Your task to perform on an android device: Go to calendar. Show me events next week Image 0: 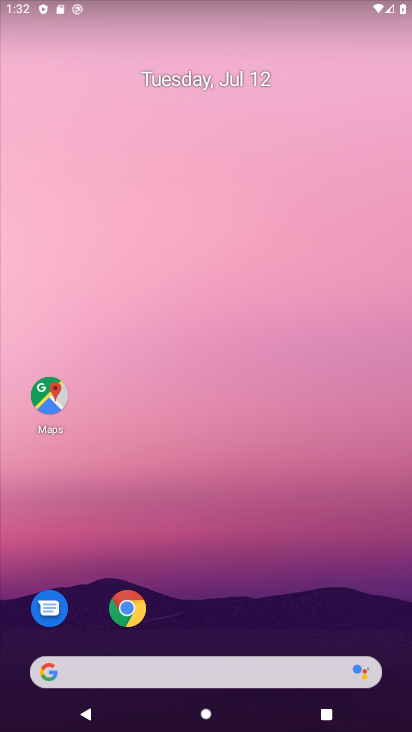
Step 0: click (230, 7)
Your task to perform on an android device: Go to calendar. Show me events next week Image 1: 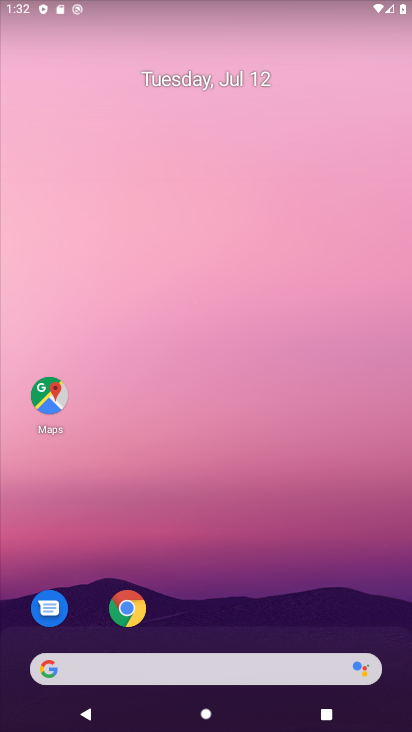
Step 1: drag from (313, 476) to (262, 89)
Your task to perform on an android device: Go to calendar. Show me events next week Image 2: 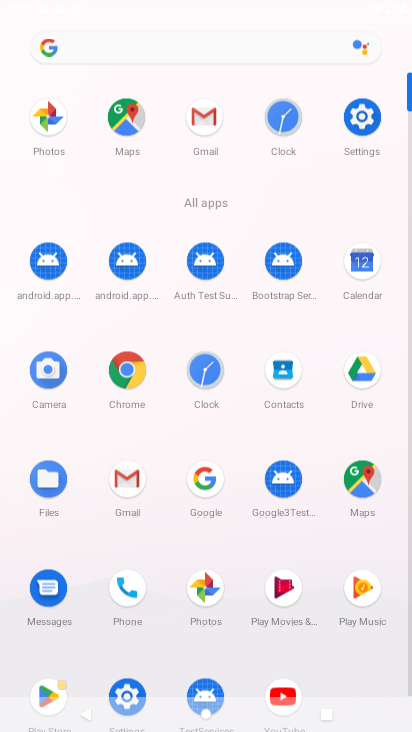
Step 2: drag from (275, 573) to (255, 296)
Your task to perform on an android device: Go to calendar. Show me events next week Image 3: 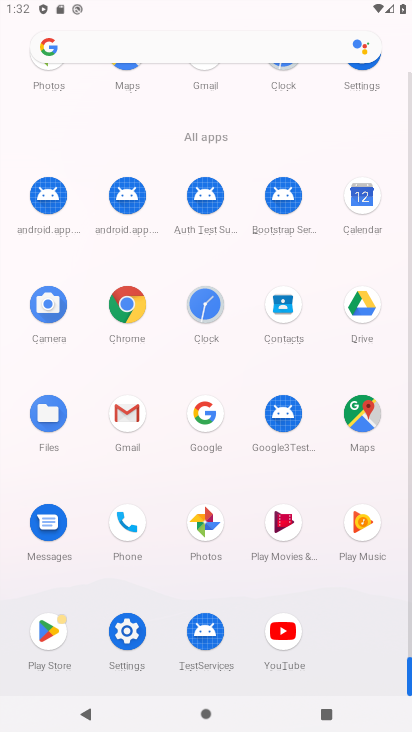
Step 3: click (370, 213)
Your task to perform on an android device: Go to calendar. Show me events next week Image 4: 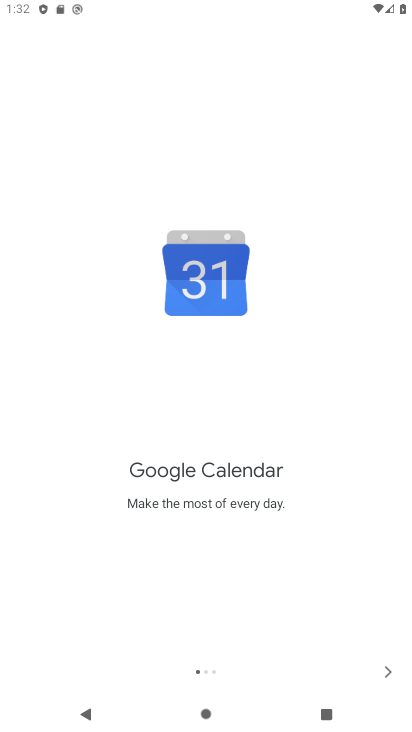
Step 4: click (385, 666)
Your task to perform on an android device: Go to calendar. Show me events next week Image 5: 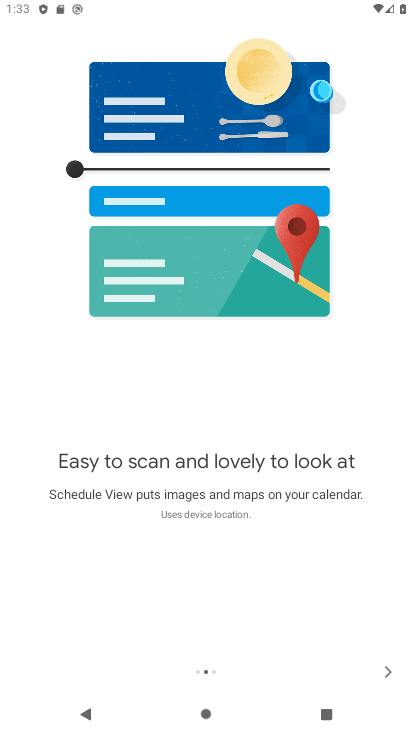
Step 5: click (383, 668)
Your task to perform on an android device: Go to calendar. Show me events next week Image 6: 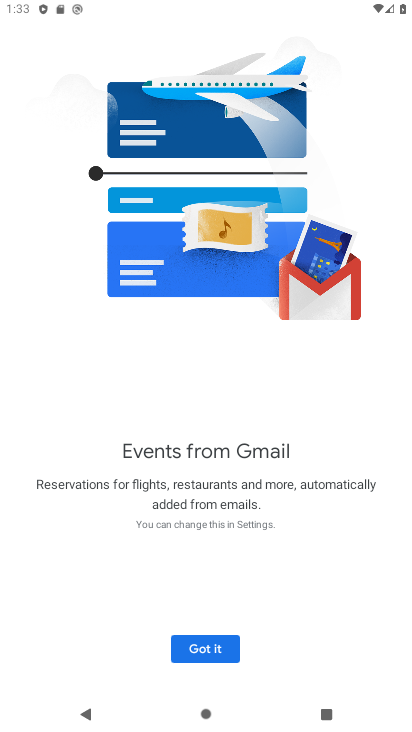
Step 6: click (209, 652)
Your task to perform on an android device: Go to calendar. Show me events next week Image 7: 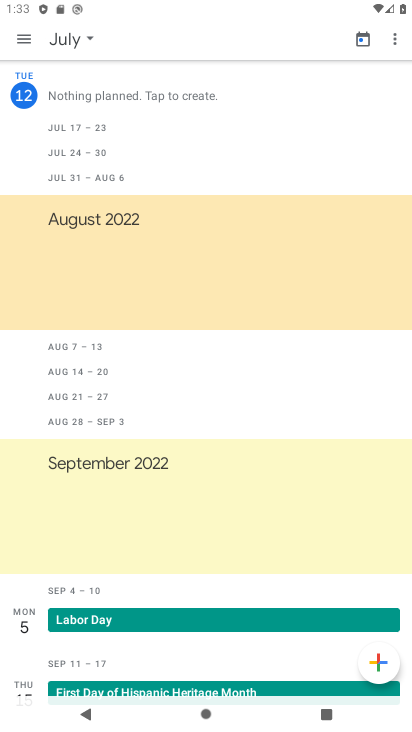
Step 7: click (72, 36)
Your task to perform on an android device: Go to calendar. Show me events next week Image 8: 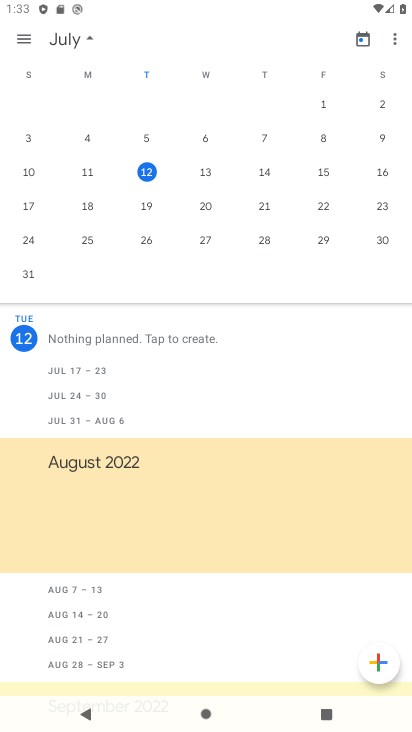
Step 8: click (386, 169)
Your task to perform on an android device: Go to calendar. Show me events next week Image 9: 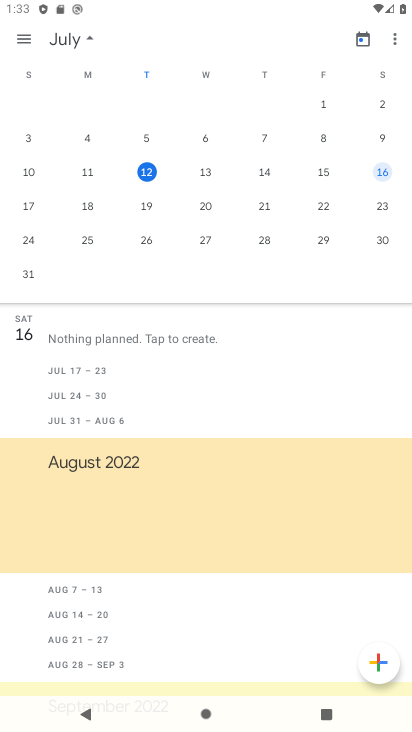
Step 9: click (32, 45)
Your task to perform on an android device: Go to calendar. Show me events next week Image 10: 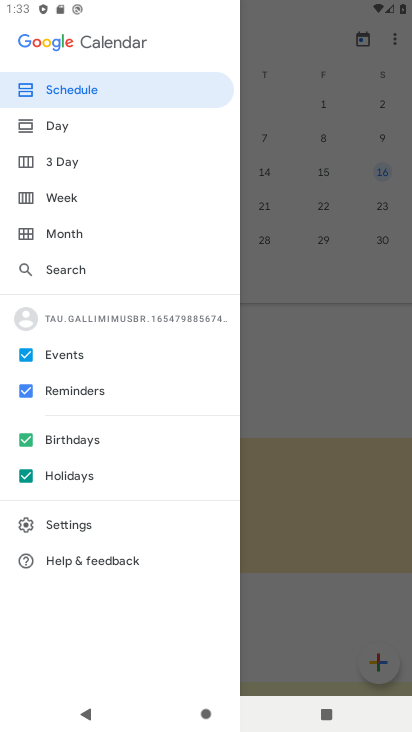
Step 10: click (64, 197)
Your task to perform on an android device: Go to calendar. Show me events next week Image 11: 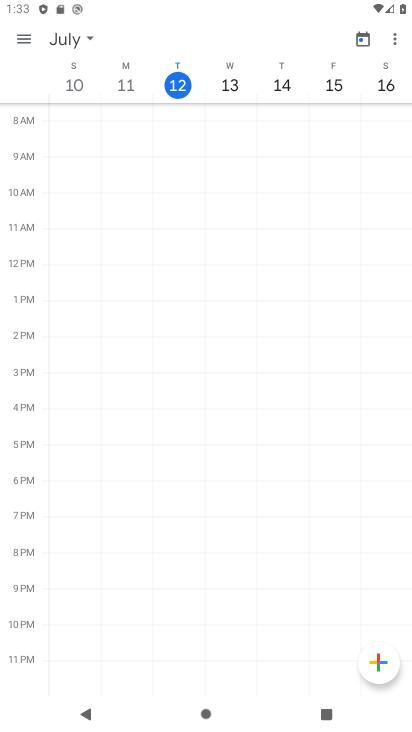
Step 11: task complete